Your task to perform on an android device: Go to eBay Image 0: 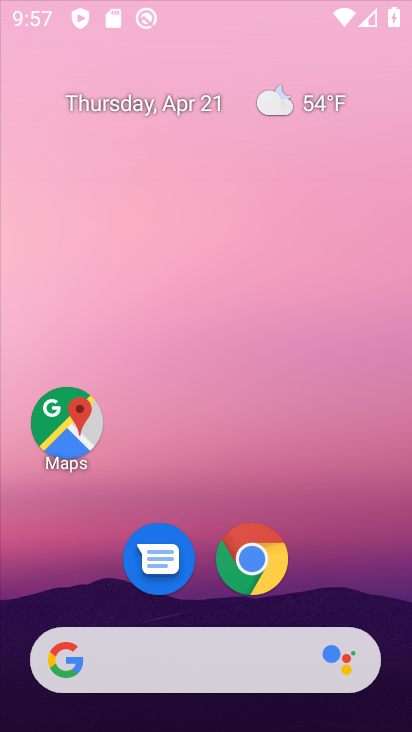
Step 0: drag from (216, 426) to (299, 112)
Your task to perform on an android device: Go to eBay Image 1: 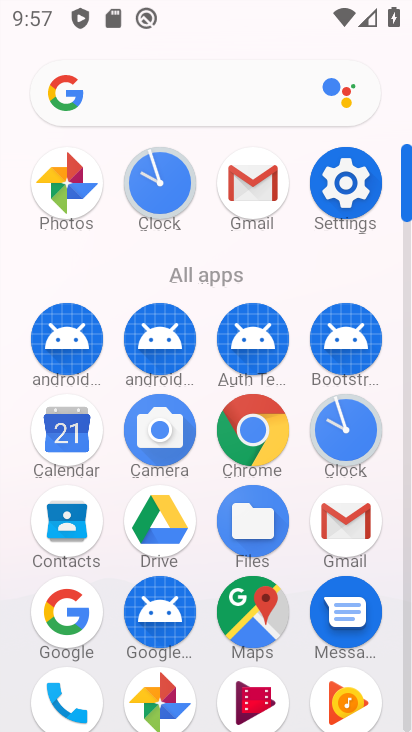
Step 1: press back button
Your task to perform on an android device: Go to eBay Image 2: 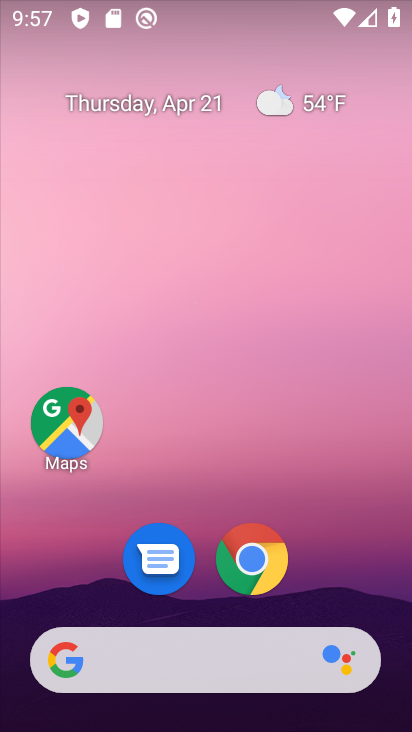
Step 2: click (260, 561)
Your task to perform on an android device: Go to eBay Image 3: 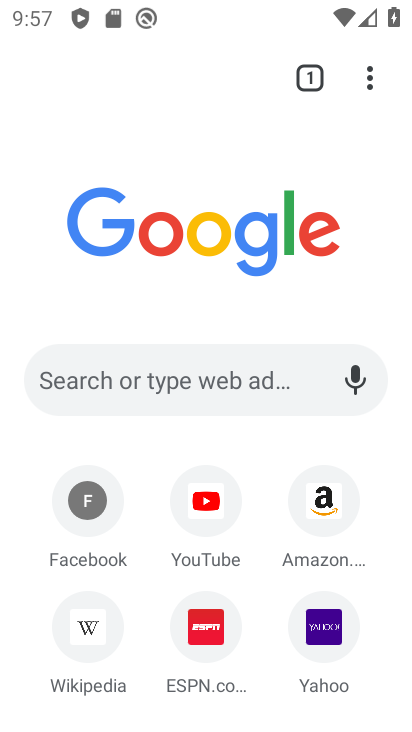
Step 3: click (107, 371)
Your task to perform on an android device: Go to eBay Image 4: 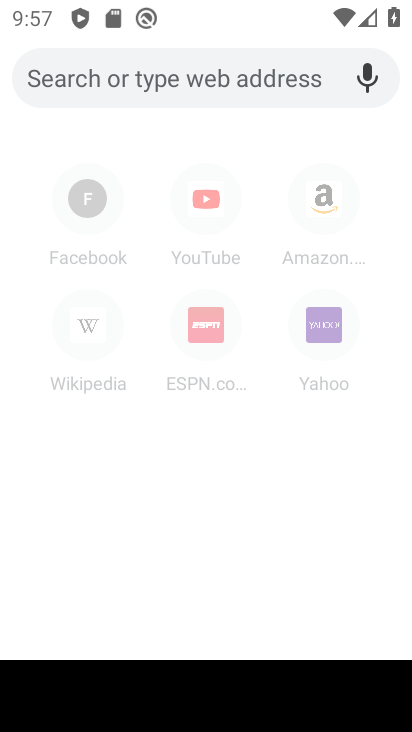
Step 4: type "ebay"
Your task to perform on an android device: Go to eBay Image 5: 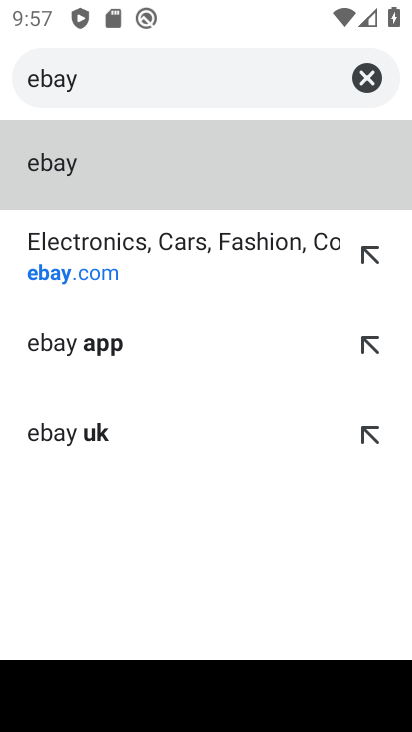
Step 5: click (164, 169)
Your task to perform on an android device: Go to eBay Image 6: 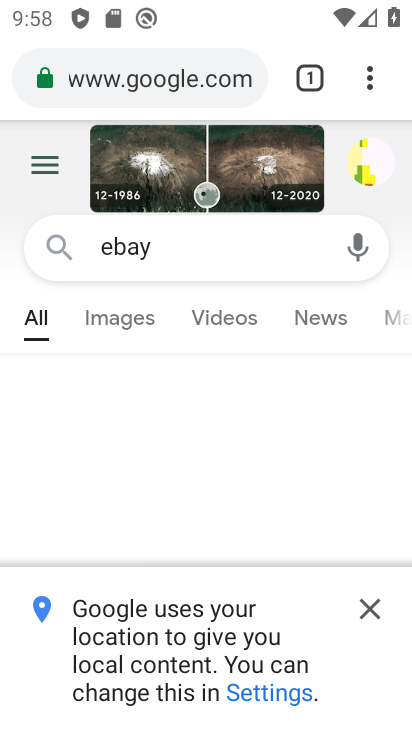
Step 6: click (373, 598)
Your task to perform on an android device: Go to eBay Image 7: 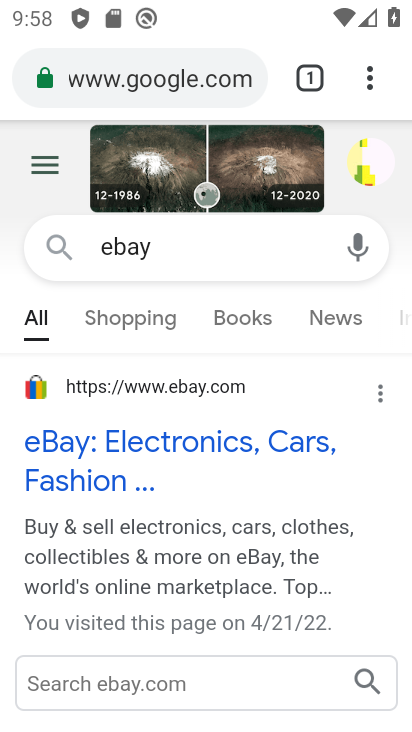
Step 7: click (141, 470)
Your task to perform on an android device: Go to eBay Image 8: 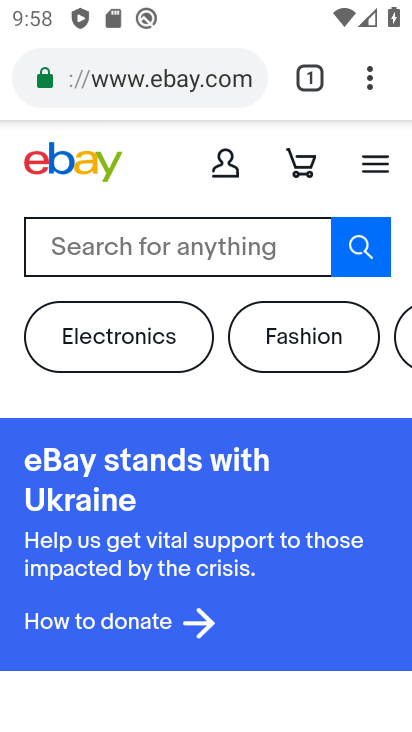
Step 8: task complete